Your task to perform on an android device: Search for the best rated kitchen reno kits on Lowes.com Image 0: 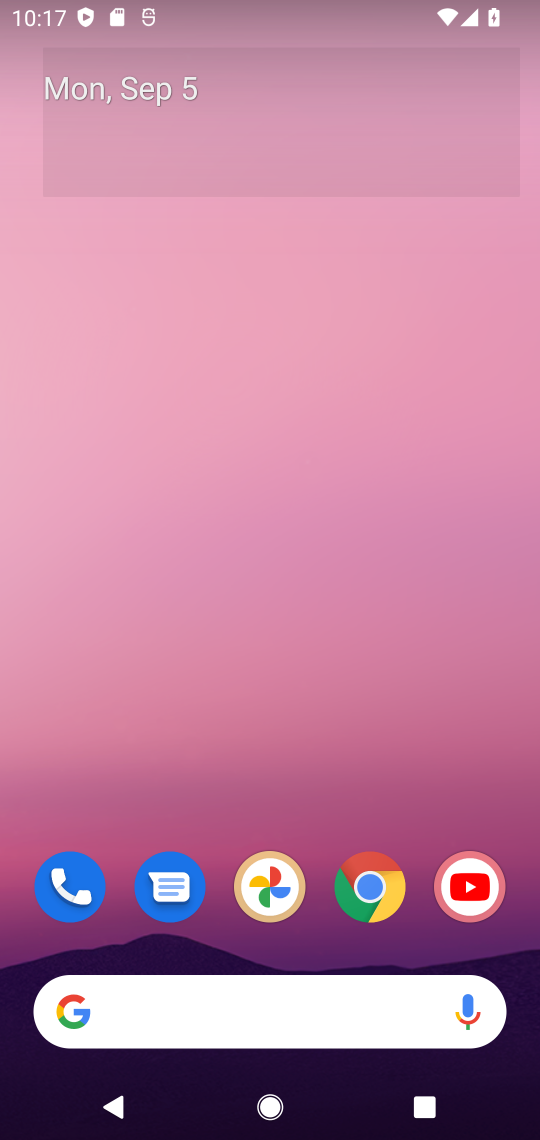
Step 0: click (382, 879)
Your task to perform on an android device: Search for the best rated kitchen reno kits on Lowes.com Image 1: 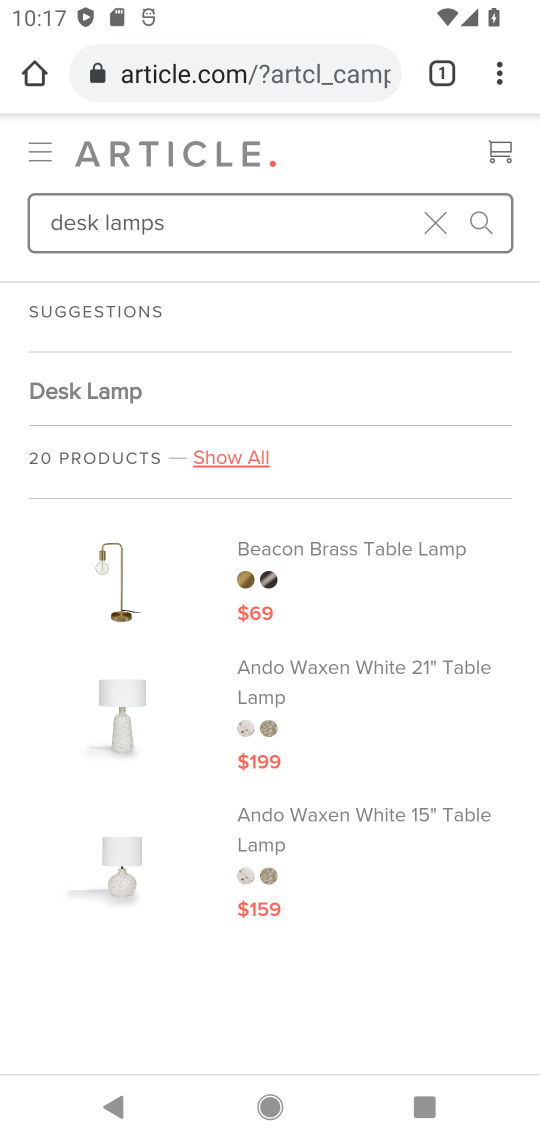
Step 1: click (276, 70)
Your task to perform on an android device: Search for the best rated kitchen reno kits on Lowes.com Image 2: 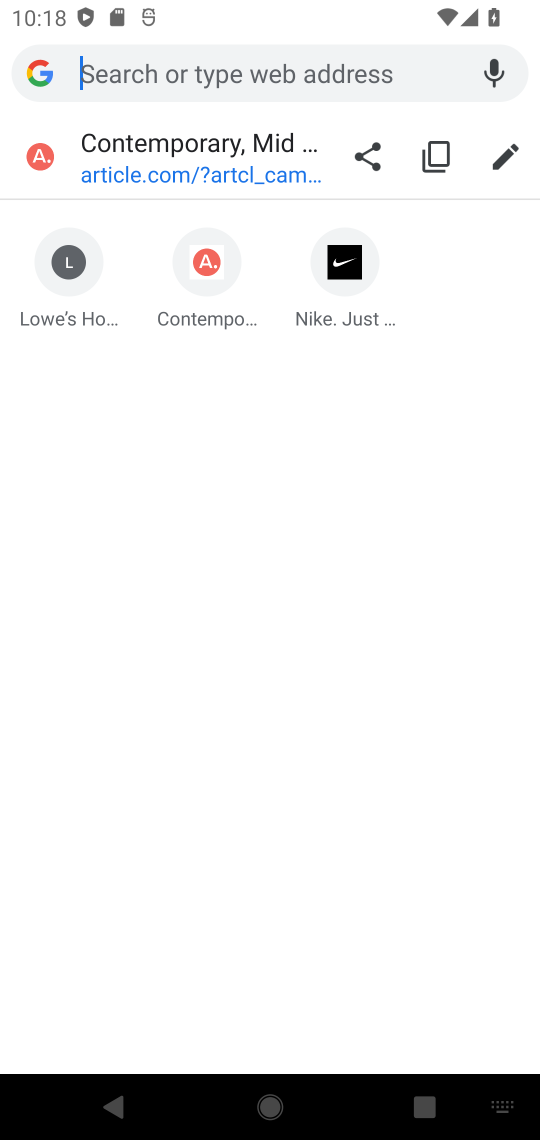
Step 2: type "lowes"
Your task to perform on an android device: Search for the best rated kitchen reno kits on Lowes.com Image 3: 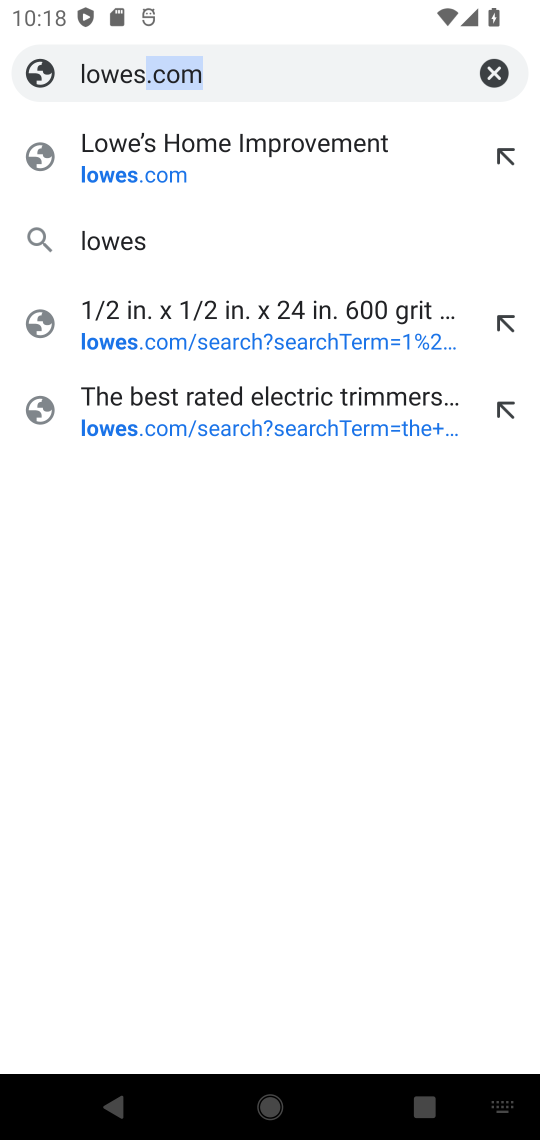
Step 3: click (204, 160)
Your task to perform on an android device: Search for the best rated kitchen reno kits on Lowes.com Image 4: 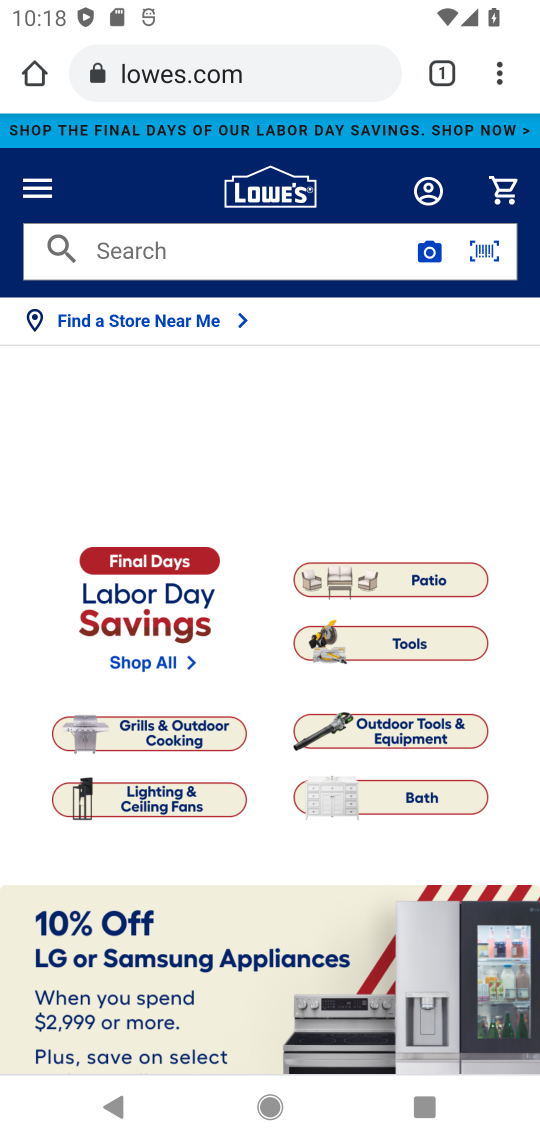
Step 4: click (196, 253)
Your task to perform on an android device: Search for the best rated kitchen reno kits on Lowes.com Image 5: 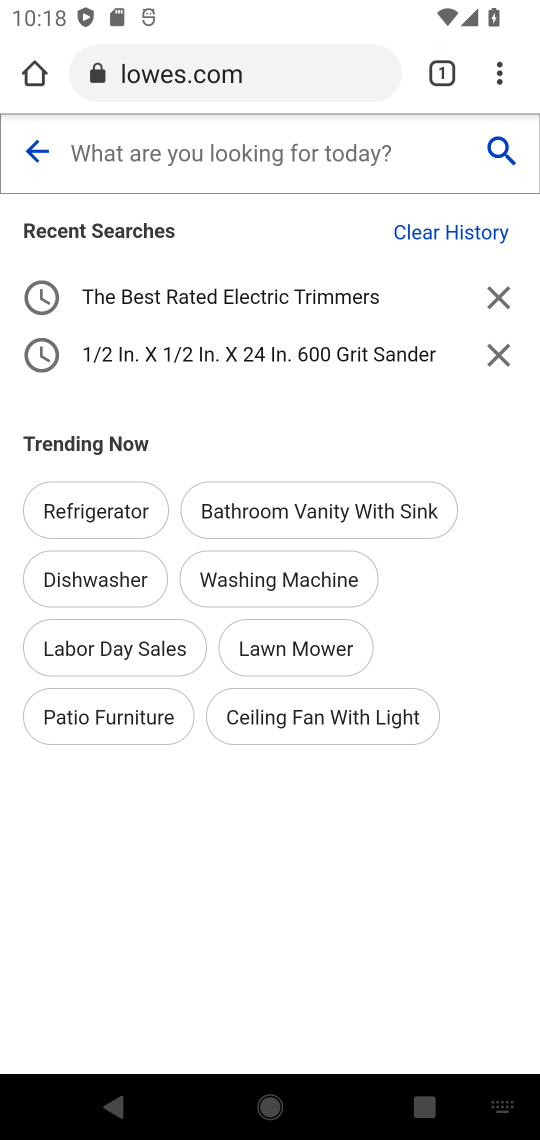
Step 5: type "the best rated kitchen reno kits"
Your task to perform on an android device: Search for the best rated kitchen reno kits on Lowes.com Image 6: 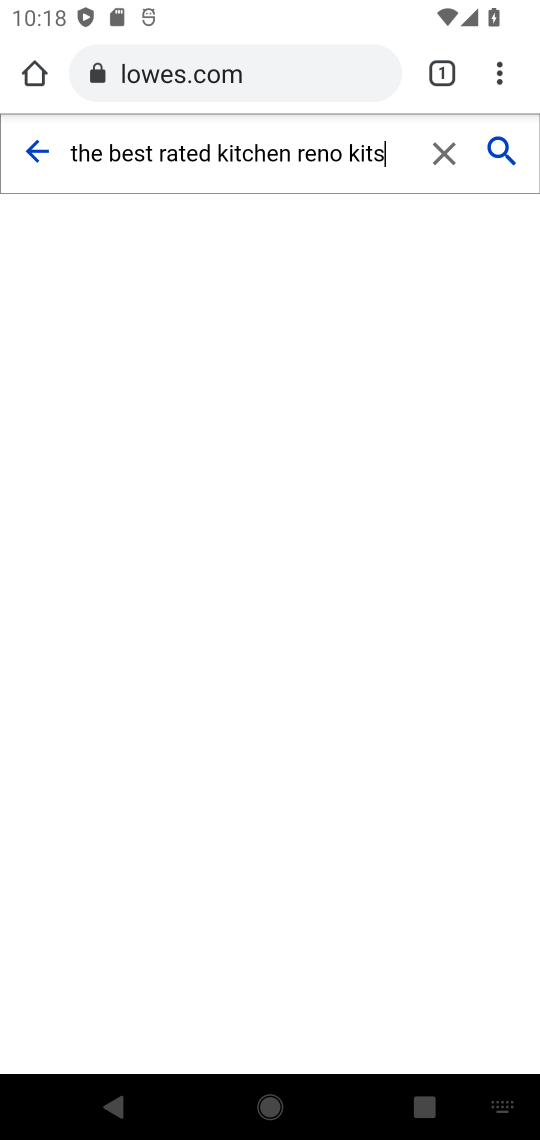
Step 6: click (502, 153)
Your task to perform on an android device: Search for the best rated kitchen reno kits on Lowes.com Image 7: 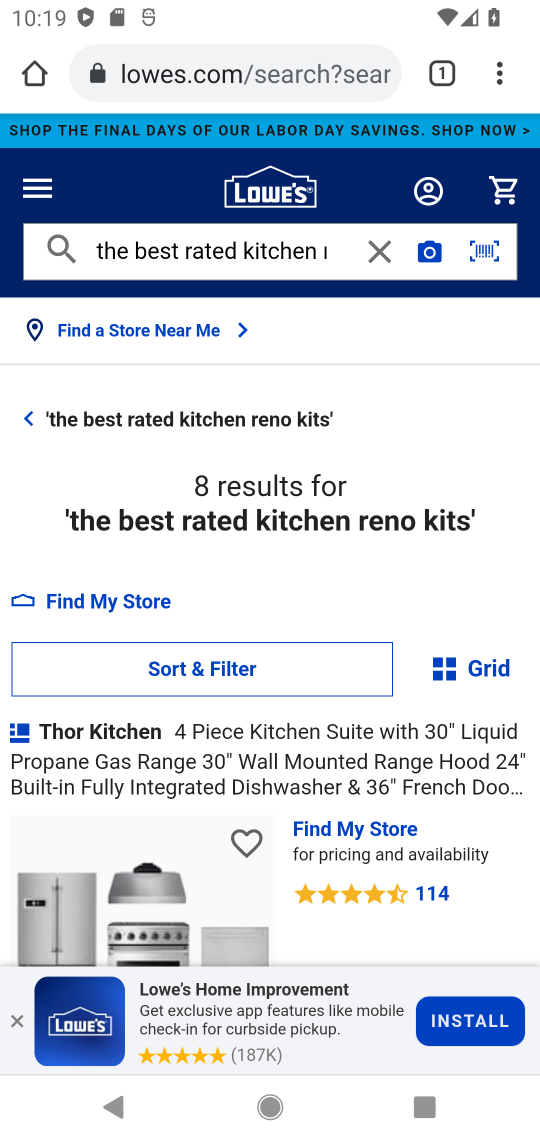
Step 7: task complete